Your task to perform on an android device: Open settings on Google Maps Image 0: 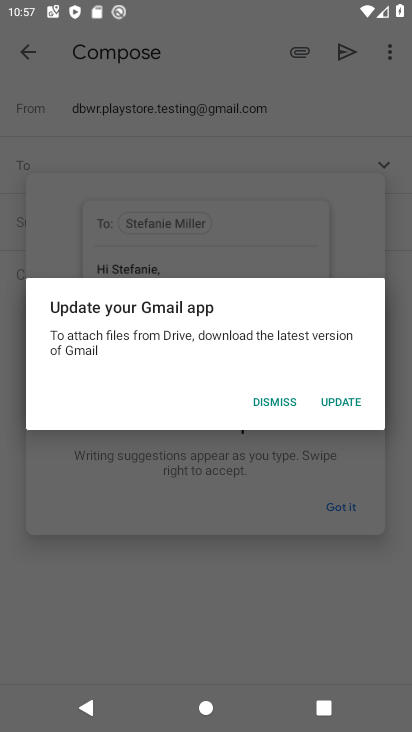
Step 0: press home button
Your task to perform on an android device: Open settings on Google Maps Image 1: 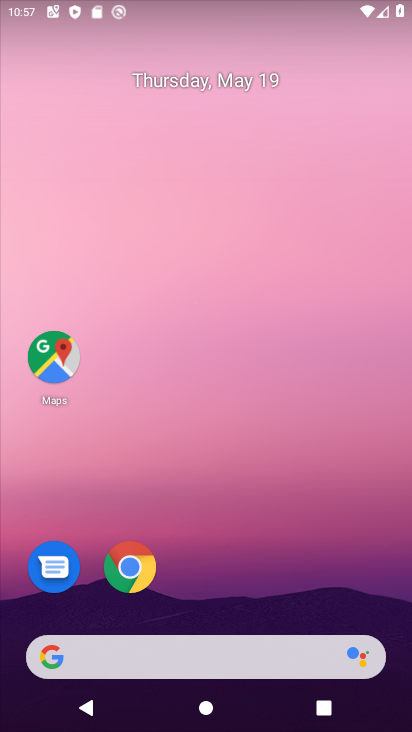
Step 1: click (55, 359)
Your task to perform on an android device: Open settings on Google Maps Image 2: 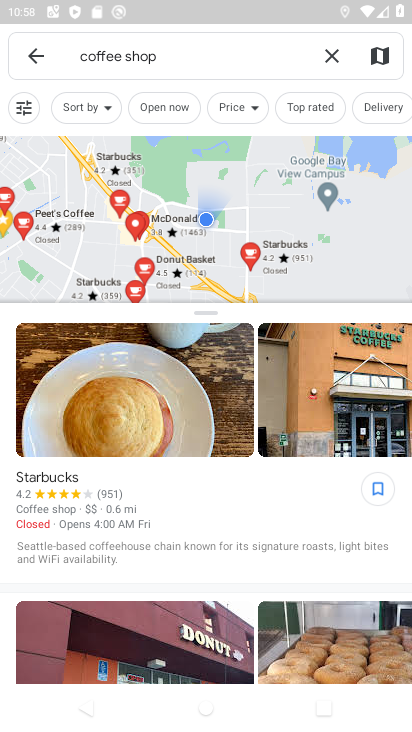
Step 2: click (330, 51)
Your task to perform on an android device: Open settings on Google Maps Image 3: 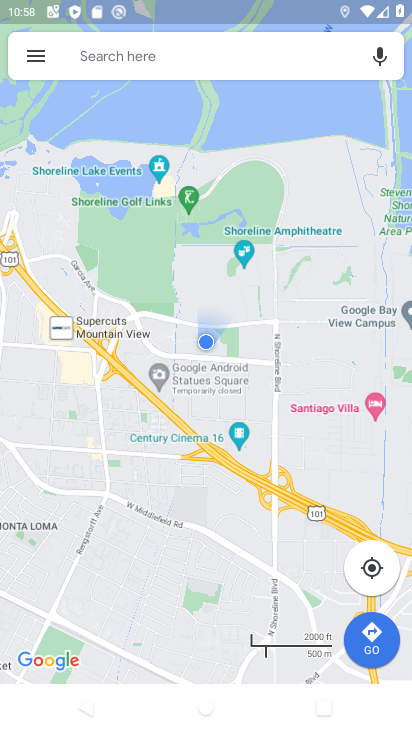
Step 3: click (35, 56)
Your task to perform on an android device: Open settings on Google Maps Image 4: 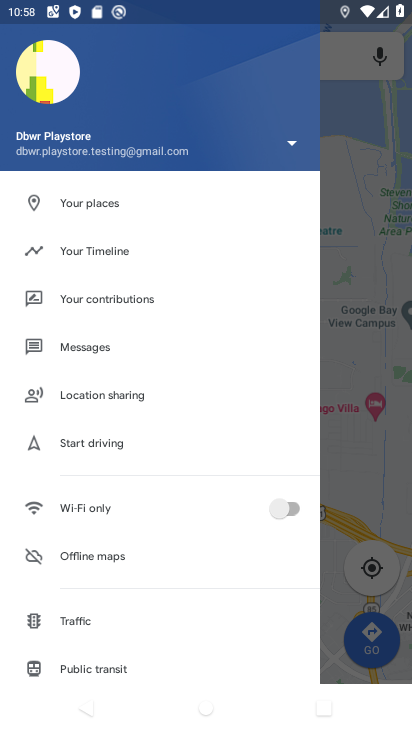
Step 4: drag from (184, 626) to (195, 220)
Your task to perform on an android device: Open settings on Google Maps Image 5: 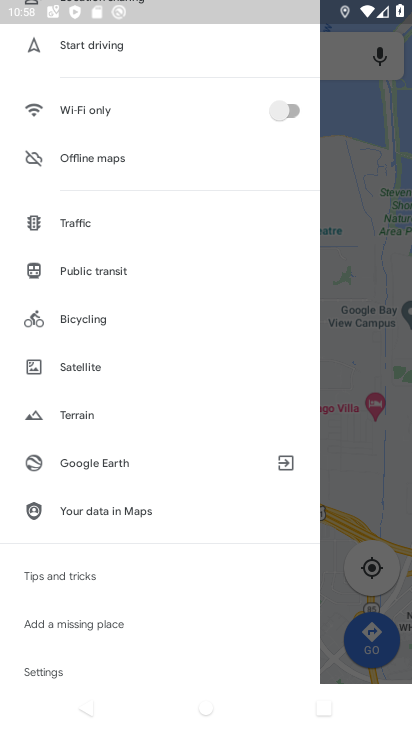
Step 5: drag from (187, 604) to (182, 159)
Your task to perform on an android device: Open settings on Google Maps Image 6: 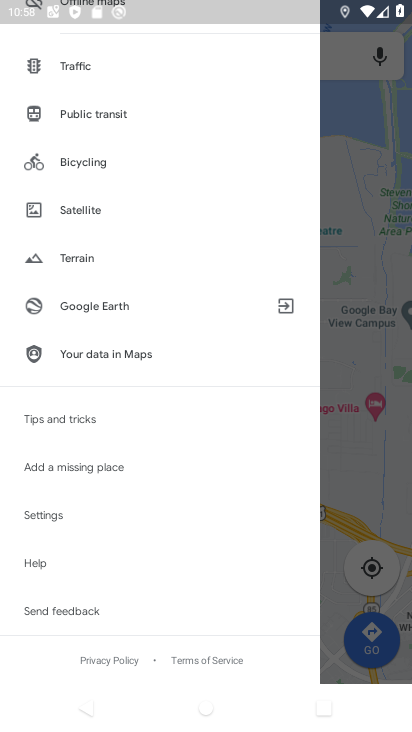
Step 6: click (40, 512)
Your task to perform on an android device: Open settings on Google Maps Image 7: 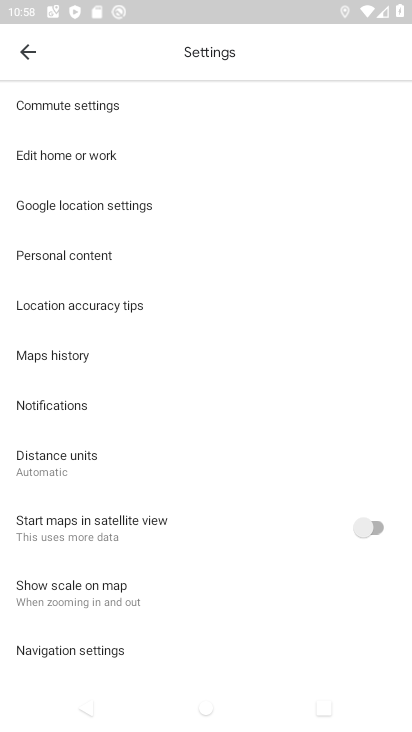
Step 7: task complete